Your task to perform on an android device: Go to eBay Image 0: 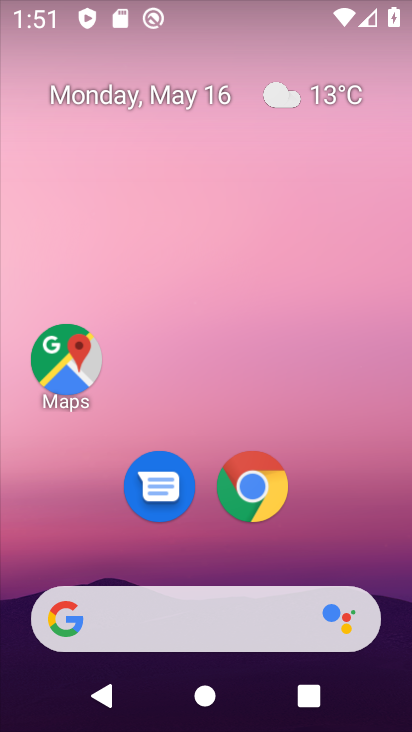
Step 0: click (251, 455)
Your task to perform on an android device: Go to eBay Image 1: 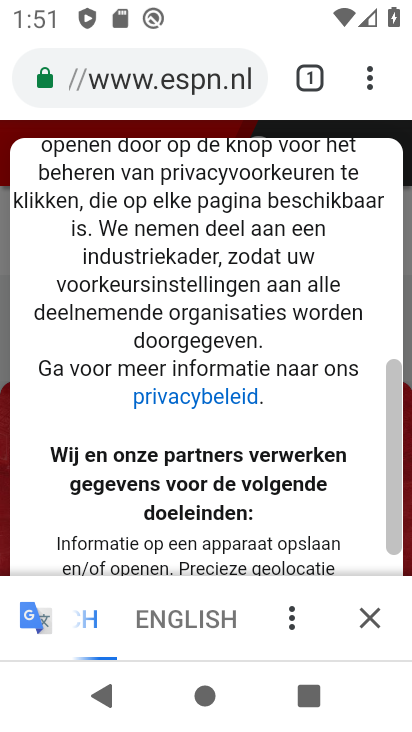
Step 1: click (205, 78)
Your task to perform on an android device: Go to eBay Image 2: 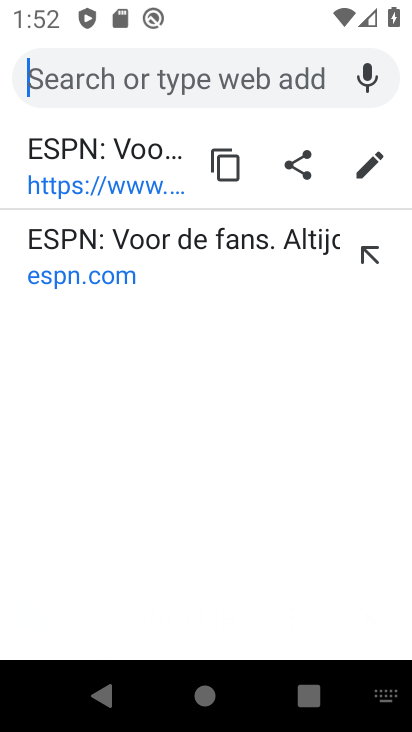
Step 2: type "ebay"
Your task to perform on an android device: Go to eBay Image 3: 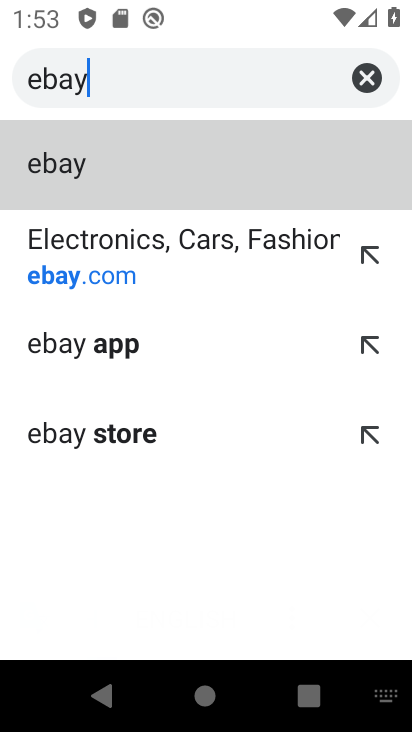
Step 3: click (107, 173)
Your task to perform on an android device: Go to eBay Image 4: 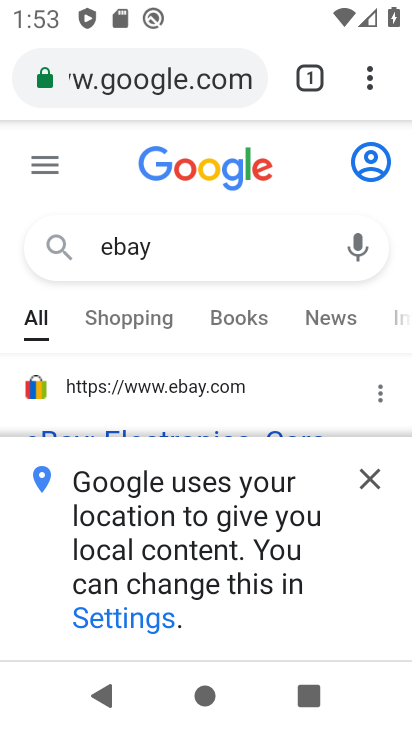
Step 4: click (364, 480)
Your task to perform on an android device: Go to eBay Image 5: 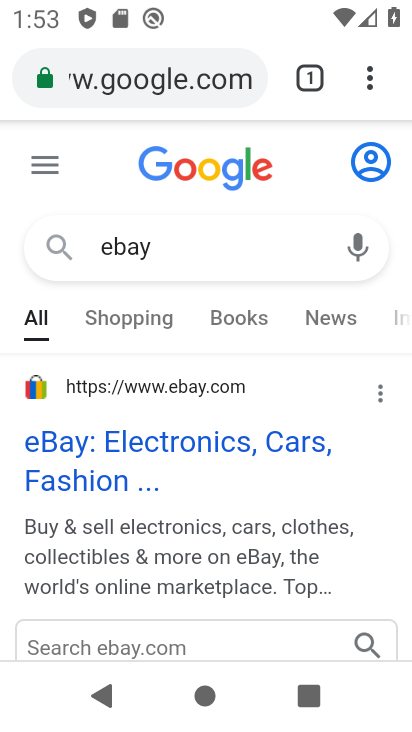
Step 5: click (207, 434)
Your task to perform on an android device: Go to eBay Image 6: 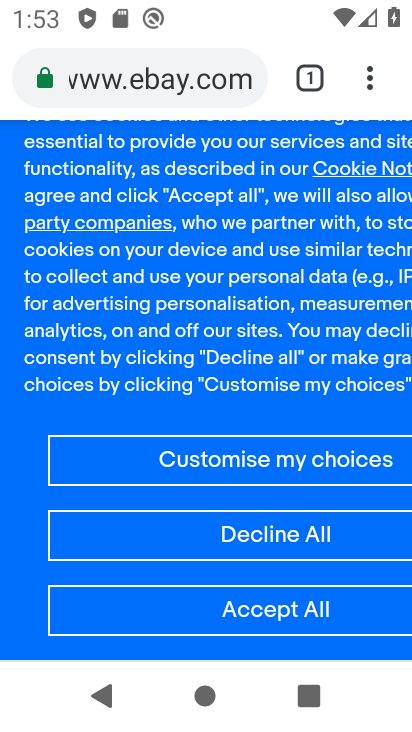
Step 6: task complete